Your task to perform on an android device: open a bookmark in the chrome app Image 0: 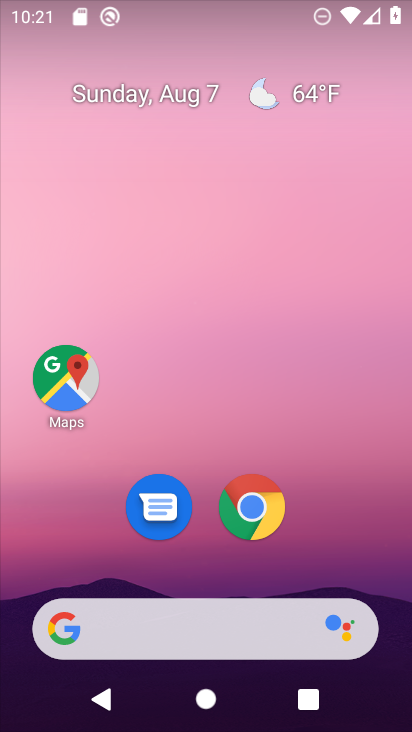
Step 0: drag from (355, 525) to (325, 3)
Your task to perform on an android device: open a bookmark in the chrome app Image 1: 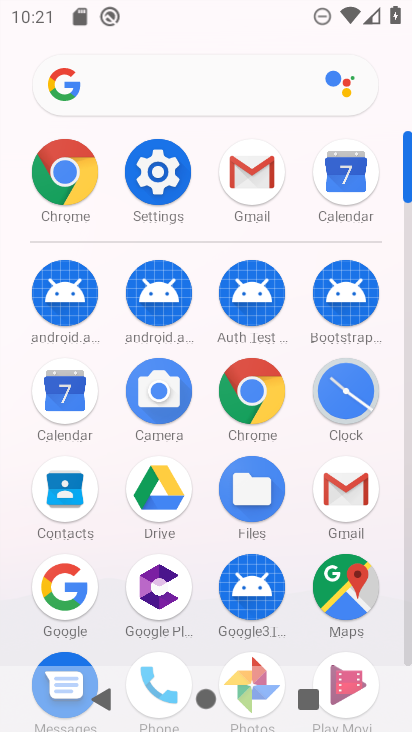
Step 1: click (255, 388)
Your task to perform on an android device: open a bookmark in the chrome app Image 2: 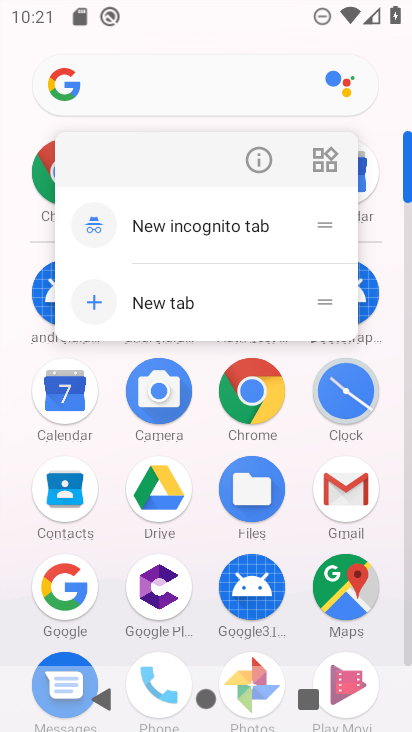
Step 2: click (254, 393)
Your task to perform on an android device: open a bookmark in the chrome app Image 3: 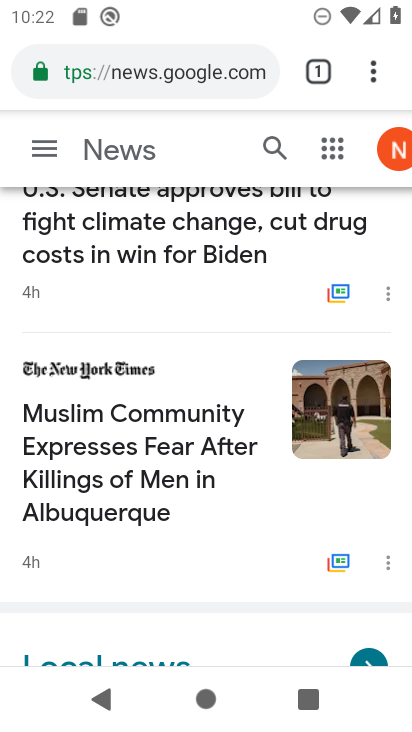
Step 3: drag from (375, 81) to (167, 277)
Your task to perform on an android device: open a bookmark in the chrome app Image 4: 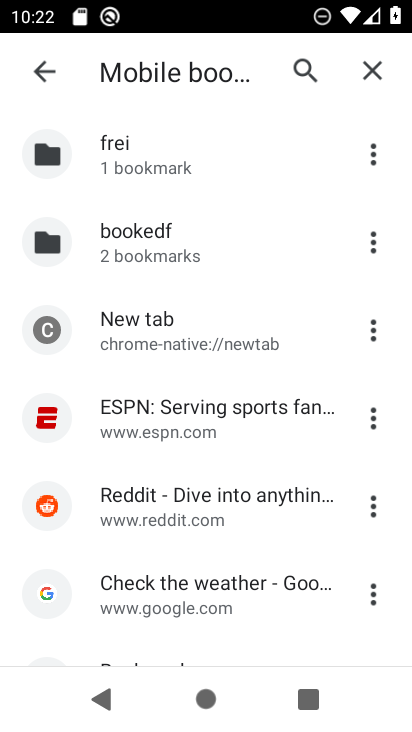
Step 4: click (206, 401)
Your task to perform on an android device: open a bookmark in the chrome app Image 5: 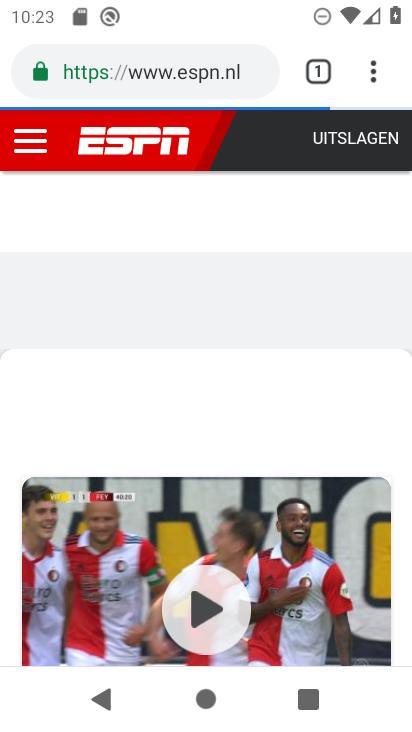
Step 5: task complete